Your task to perform on an android device: What's the weather today? Image 0: 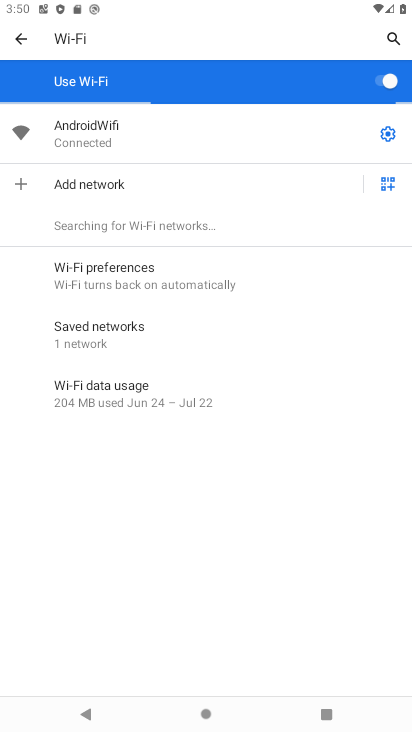
Step 0: press home button
Your task to perform on an android device: What's the weather today? Image 1: 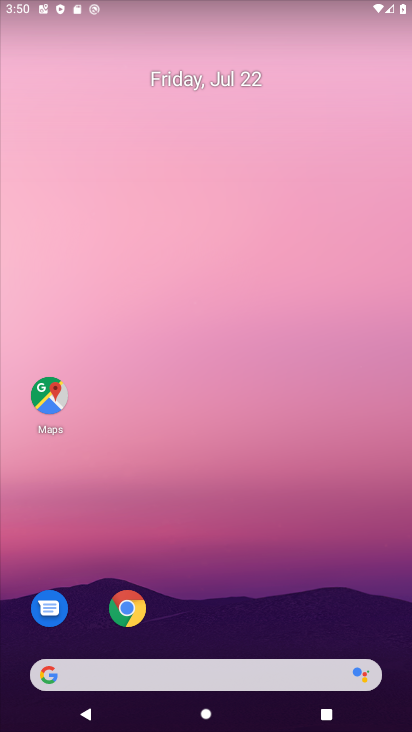
Step 1: drag from (219, 579) to (211, 155)
Your task to perform on an android device: What's the weather today? Image 2: 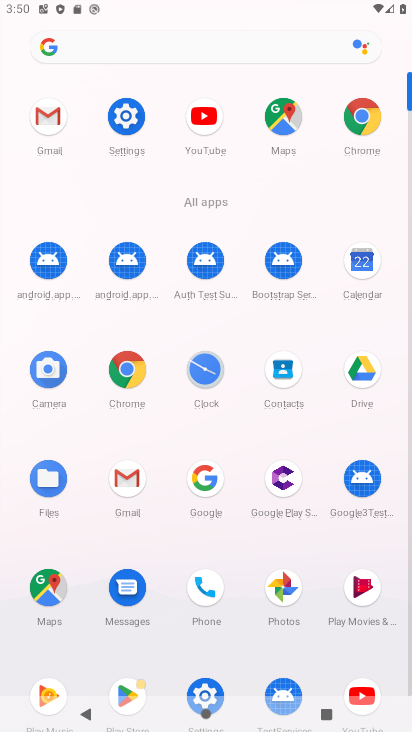
Step 2: click (203, 477)
Your task to perform on an android device: What's the weather today? Image 3: 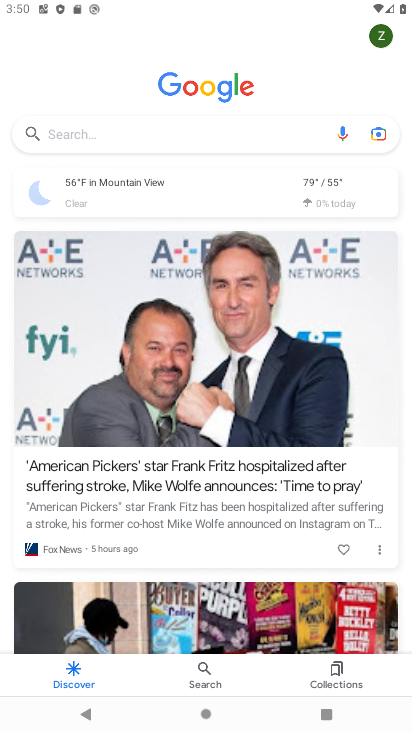
Step 3: click (110, 191)
Your task to perform on an android device: What's the weather today? Image 4: 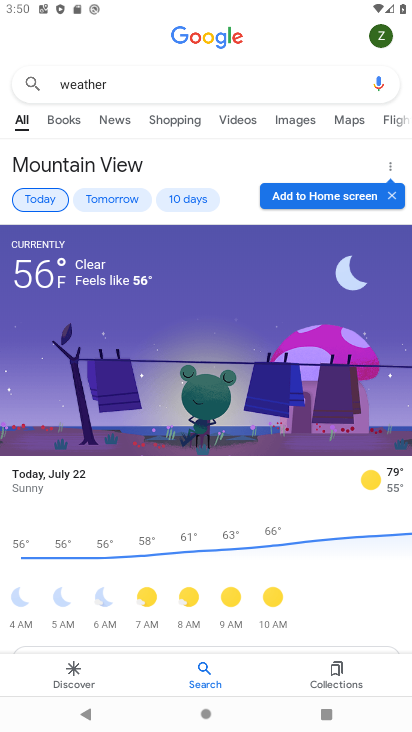
Step 4: task complete